Your task to perform on an android device: Show me popular videos on Youtube Image 0: 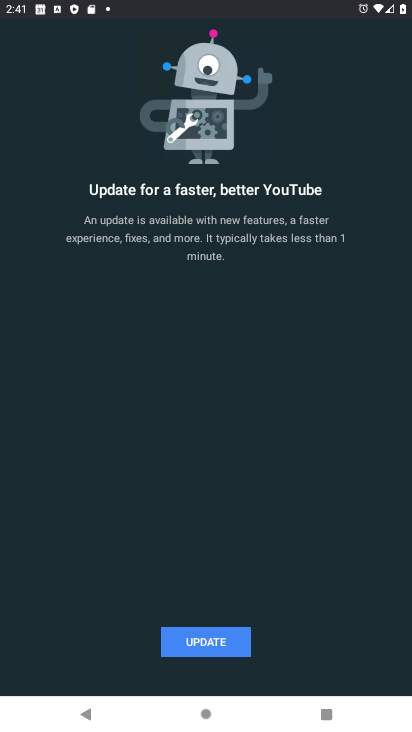
Step 0: press back button
Your task to perform on an android device: Show me popular videos on Youtube Image 1: 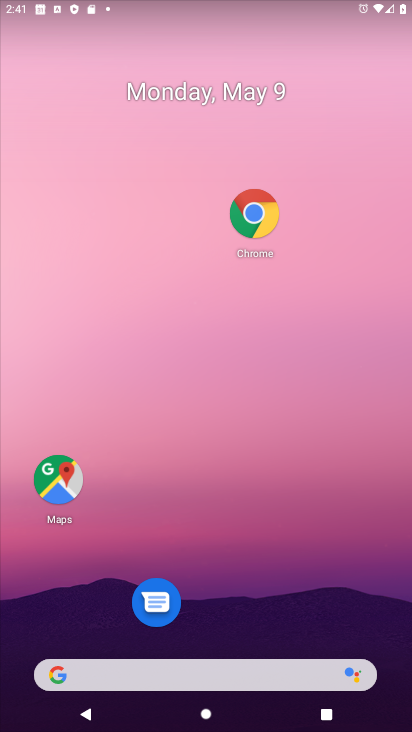
Step 1: drag from (293, 612) to (280, 275)
Your task to perform on an android device: Show me popular videos on Youtube Image 2: 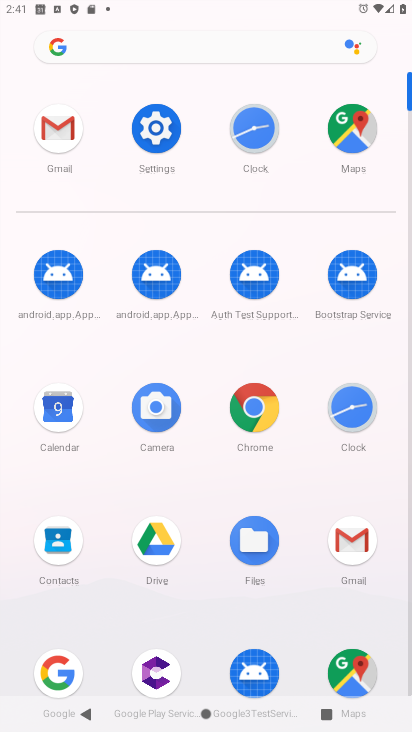
Step 2: click (409, 633)
Your task to perform on an android device: Show me popular videos on Youtube Image 3: 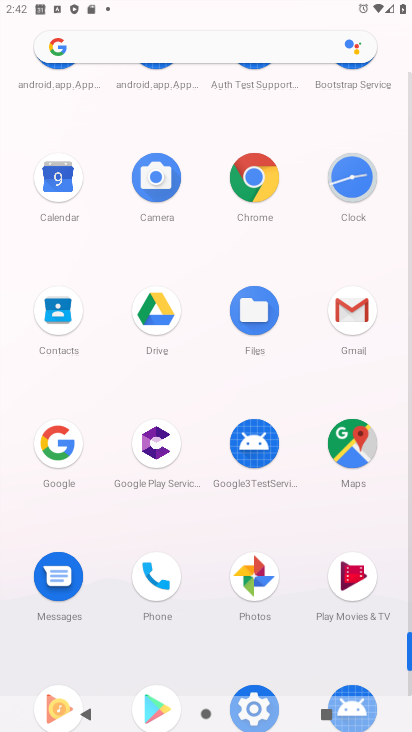
Step 3: click (410, 690)
Your task to perform on an android device: Show me popular videos on Youtube Image 4: 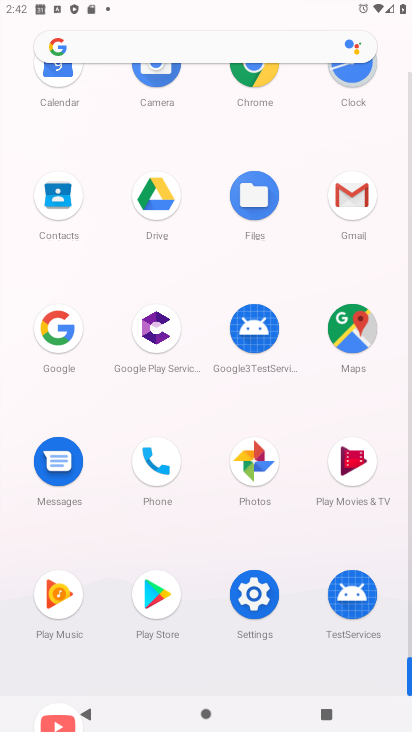
Step 4: click (60, 680)
Your task to perform on an android device: Show me popular videos on Youtube Image 5: 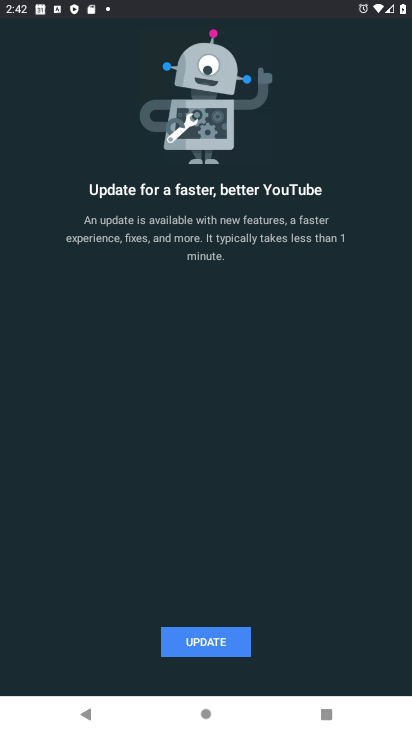
Step 5: click (236, 639)
Your task to perform on an android device: Show me popular videos on Youtube Image 6: 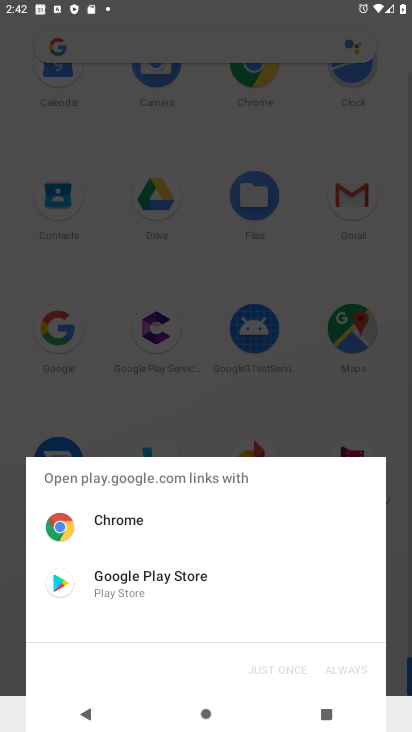
Step 6: click (178, 504)
Your task to perform on an android device: Show me popular videos on Youtube Image 7: 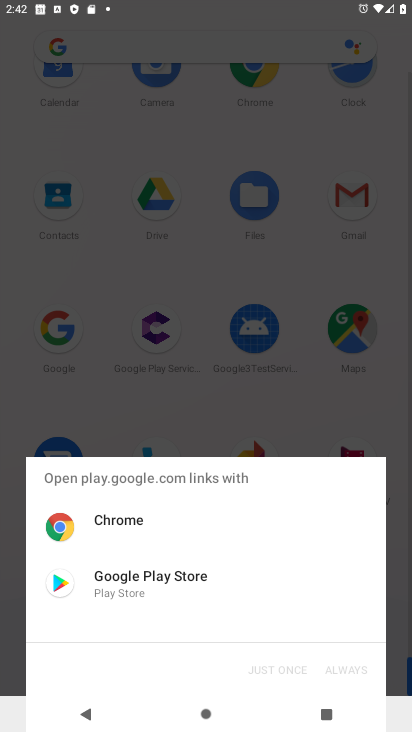
Step 7: click (178, 504)
Your task to perform on an android device: Show me popular videos on Youtube Image 8: 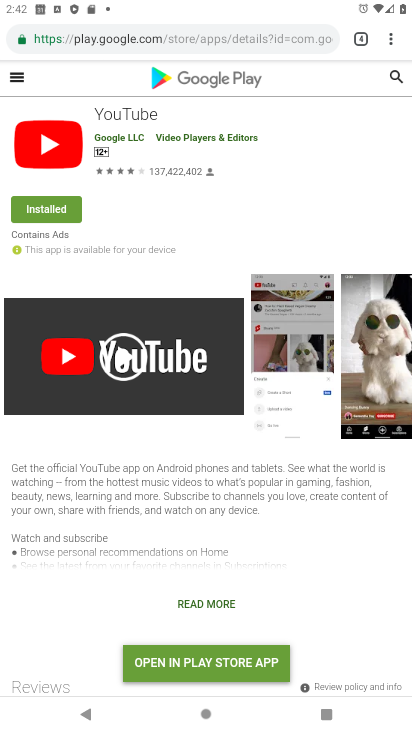
Step 8: click (185, 664)
Your task to perform on an android device: Show me popular videos on Youtube Image 9: 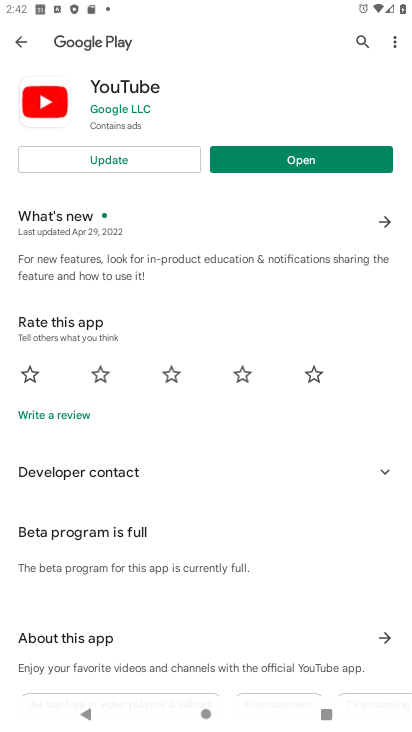
Step 9: click (156, 168)
Your task to perform on an android device: Show me popular videos on Youtube Image 10: 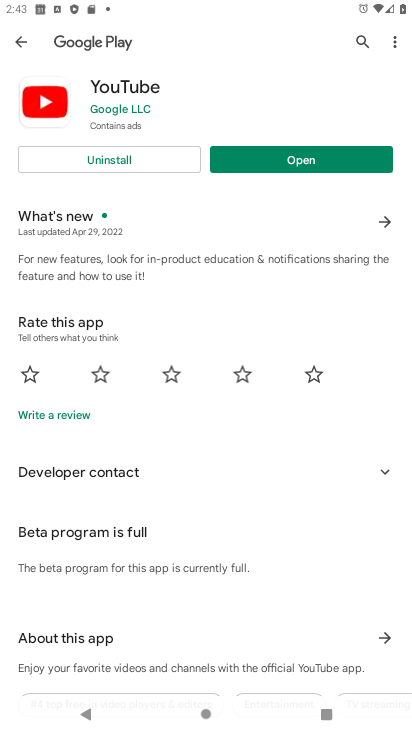
Step 10: click (356, 166)
Your task to perform on an android device: Show me popular videos on Youtube Image 11: 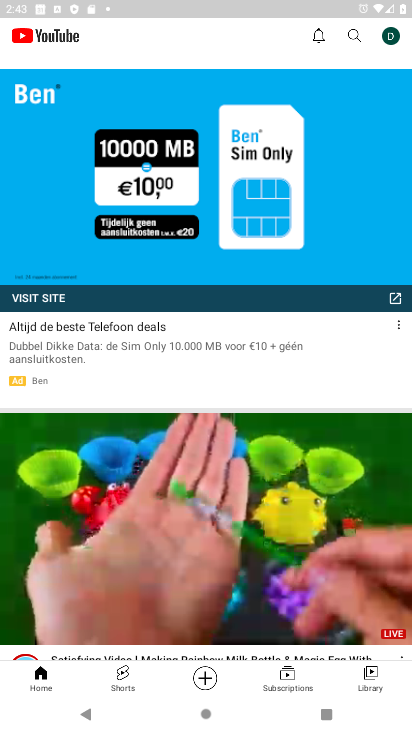
Step 11: task complete